Your task to perform on an android device: see sites visited before in the chrome app Image 0: 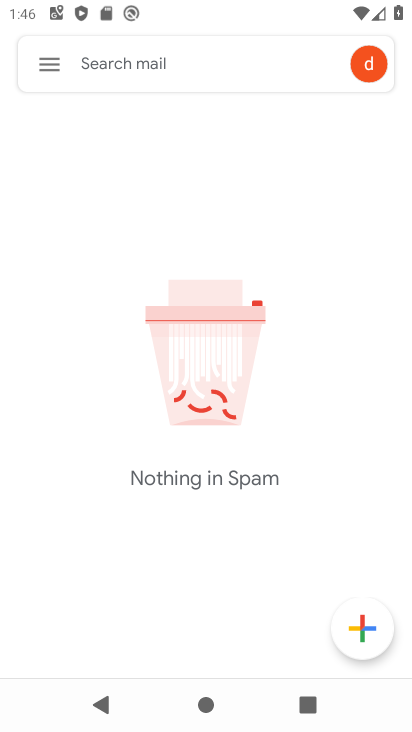
Step 0: press home button
Your task to perform on an android device: see sites visited before in the chrome app Image 1: 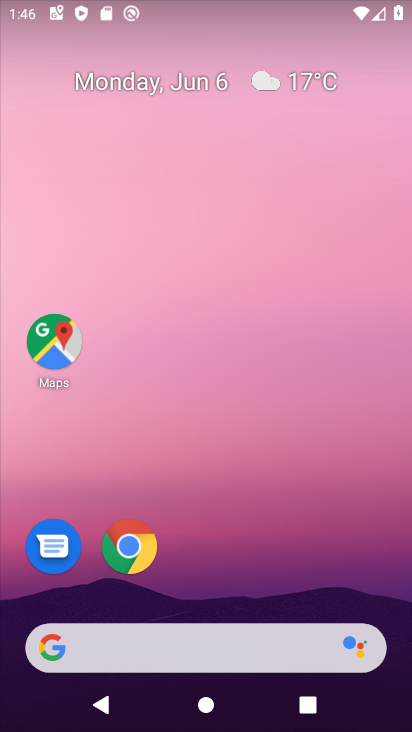
Step 1: click (127, 543)
Your task to perform on an android device: see sites visited before in the chrome app Image 2: 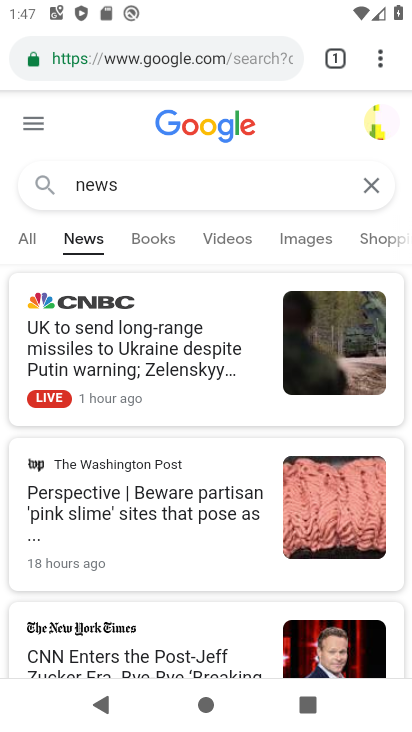
Step 2: task complete